Your task to perform on an android device: find which apps use the phone's location Image 0: 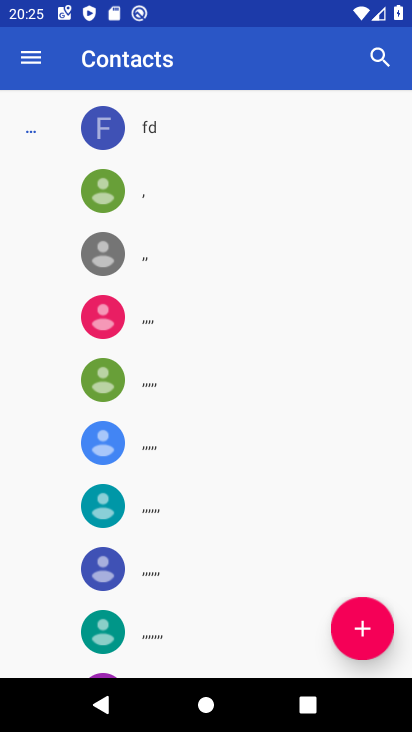
Step 0: press home button
Your task to perform on an android device: find which apps use the phone's location Image 1: 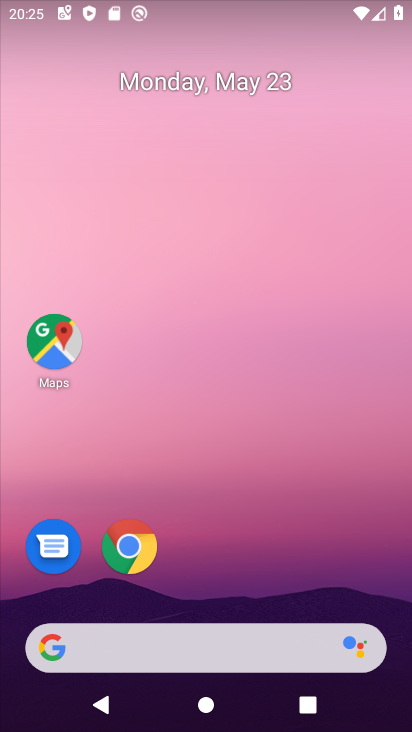
Step 1: drag from (361, 595) to (368, 209)
Your task to perform on an android device: find which apps use the phone's location Image 2: 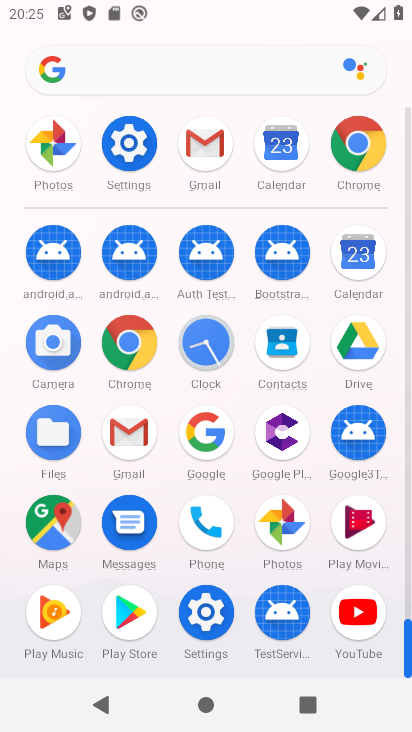
Step 2: click (220, 620)
Your task to perform on an android device: find which apps use the phone's location Image 3: 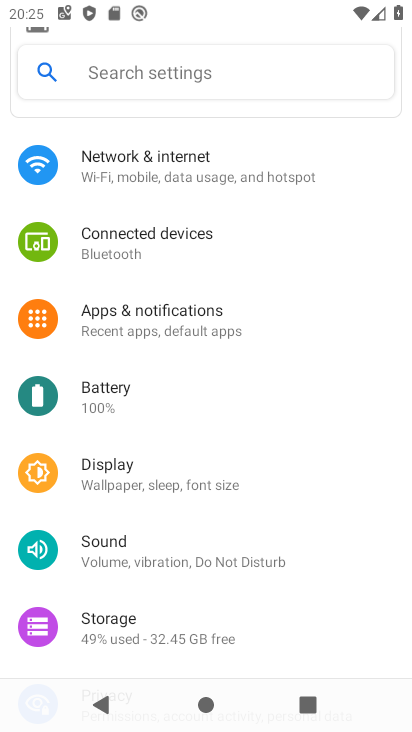
Step 3: drag from (367, 568) to (379, 487)
Your task to perform on an android device: find which apps use the phone's location Image 4: 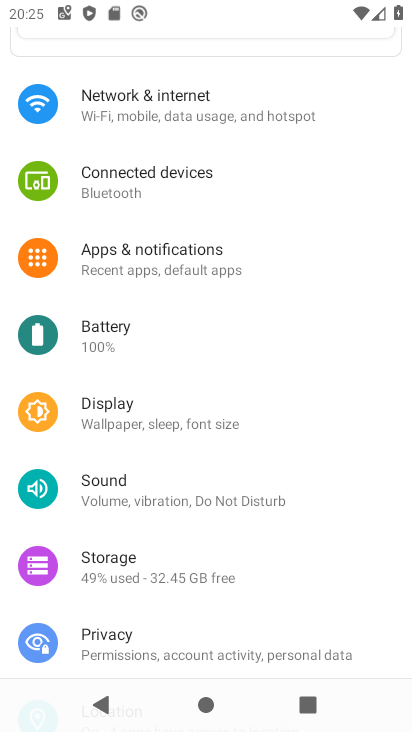
Step 4: drag from (365, 603) to (365, 505)
Your task to perform on an android device: find which apps use the phone's location Image 5: 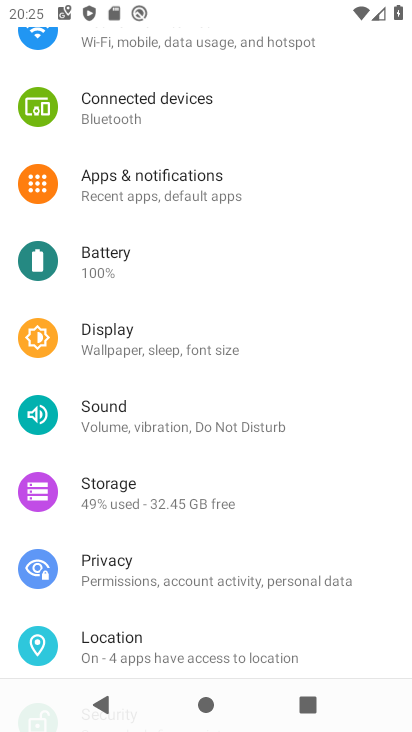
Step 5: drag from (375, 648) to (380, 548)
Your task to perform on an android device: find which apps use the phone's location Image 6: 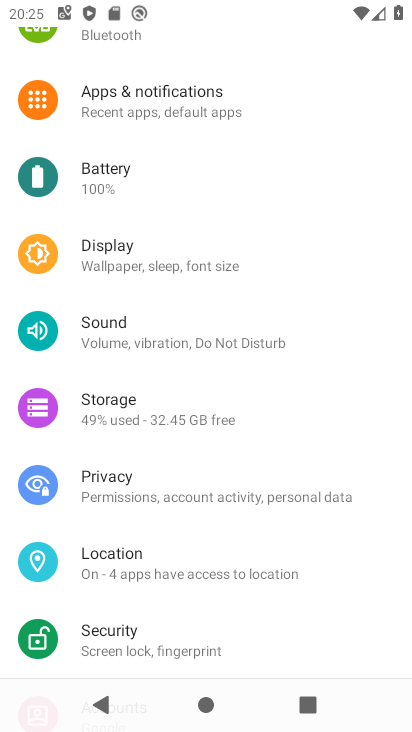
Step 6: drag from (363, 622) to (364, 491)
Your task to perform on an android device: find which apps use the phone's location Image 7: 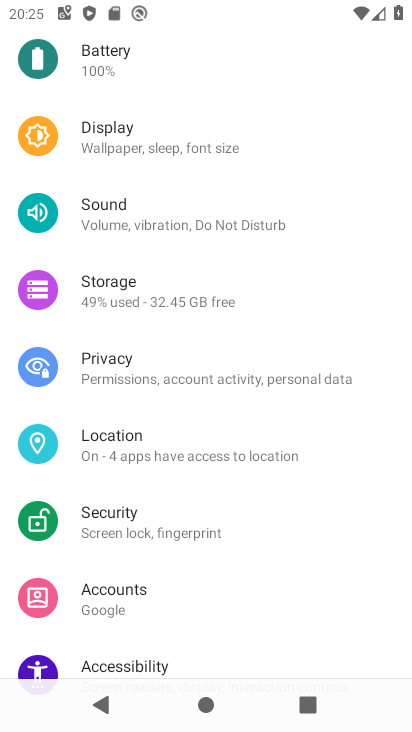
Step 7: drag from (359, 603) to (345, 466)
Your task to perform on an android device: find which apps use the phone's location Image 8: 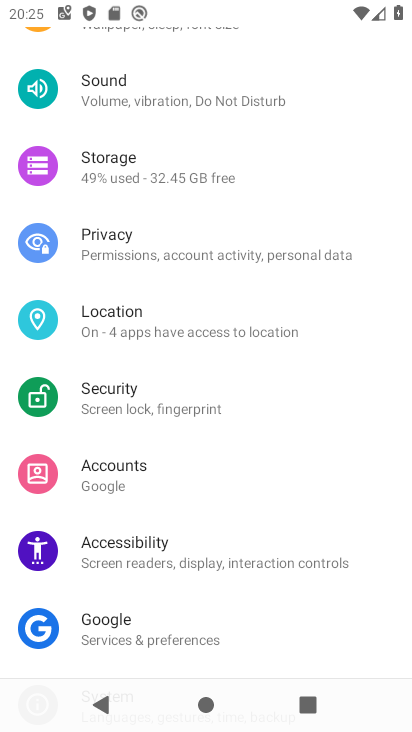
Step 8: drag from (347, 628) to (358, 473)
Your task to perform on an android device: find which apps use the phone's location Image 9: 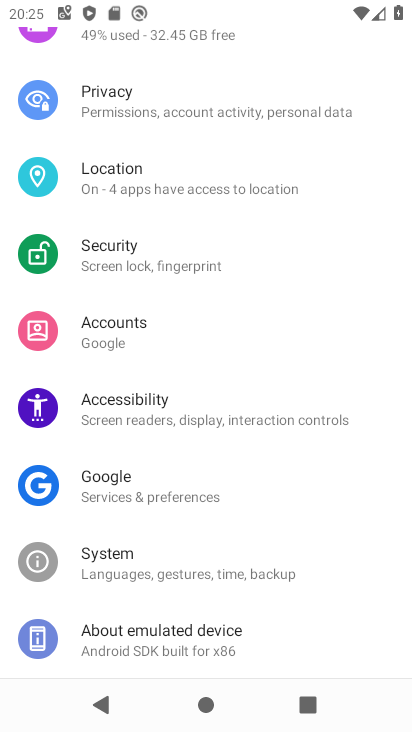
Step 9: drag from (341, 613) to (343, 510)
Your task to perform on an android device: find which apps use the phone's location Image 10: 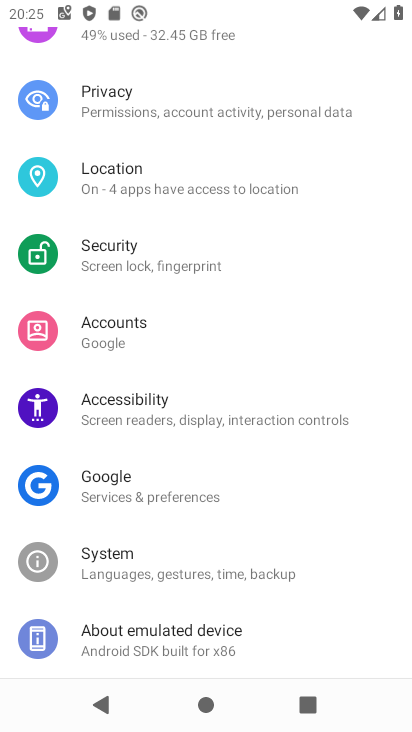
Step 10: drag from (342, 461) to (337, 525)
Your task to perform on an android device: find which apps use the phone's location Image 11: 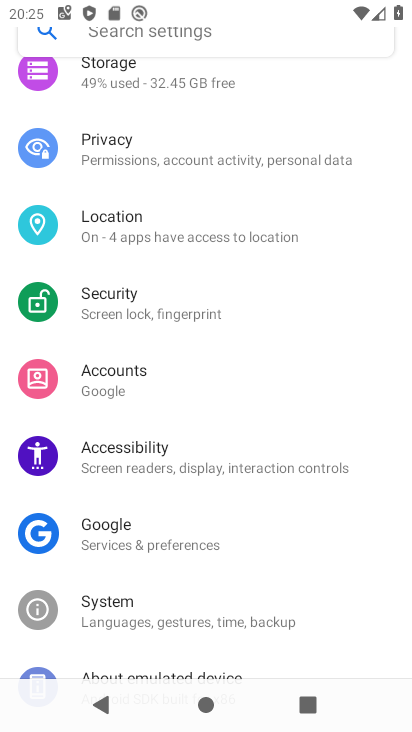
Step 11: drag from (351, 423) to (357, 516)
Your task to perform on an android device: find which apps use the phone's location Image 12: 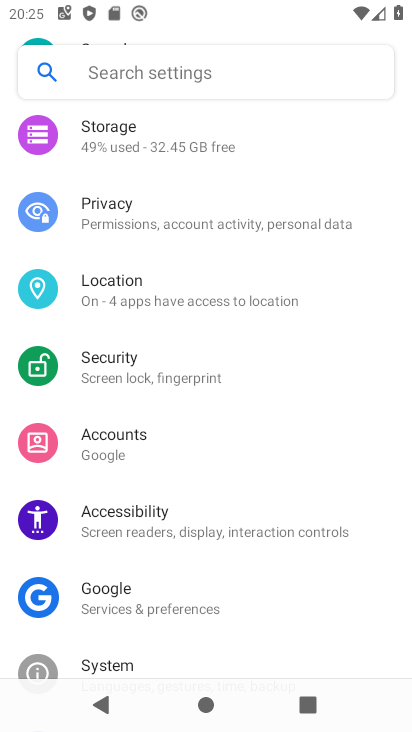
Step 12: drag from (356, 405) to (358, 489)
Your task to perform on an android device: find which apps use the phone's location Image 13: 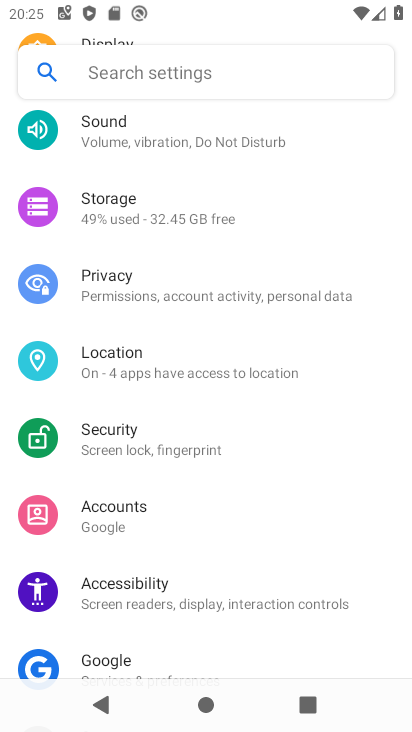
Step 13: drag from (361, 412) to (357, 496)
Your task to perform on an android device: find which apps use the phone's location Image 14: 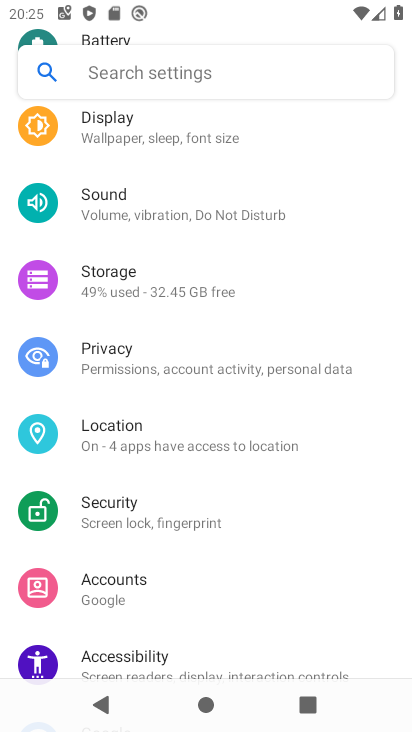
Step 14: drag from (358, 409) to (360, 483)
Your task to perform on an android device: find which apps use the phone's location Image 15: 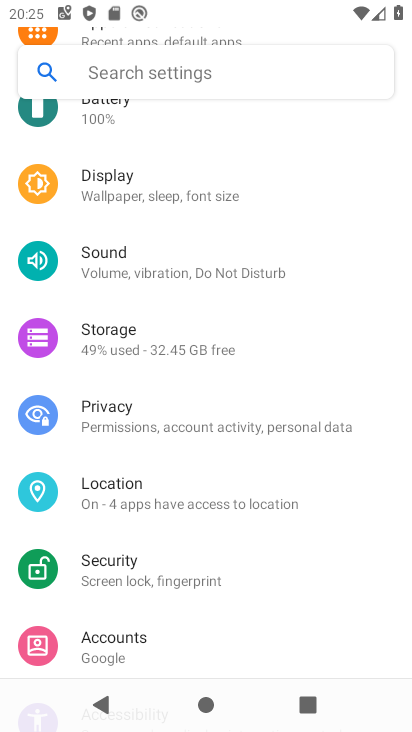
Step 15: click (299, 509)
Your task to perform on an android device: find which apps use the phone's location Image 16: 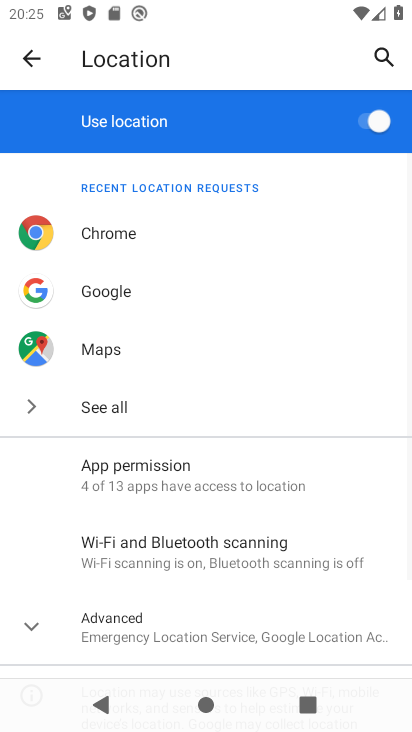
Step 16: click (278, 476)
Your task to perform on an android device: find which apps use the phone's location Image 17: 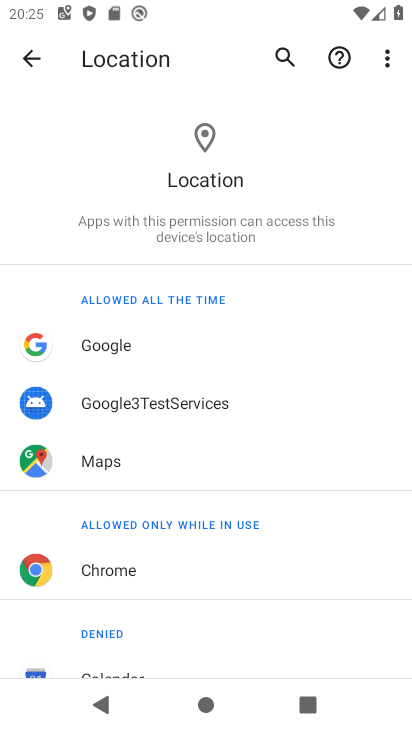
Step 17: drag from (341, 573) to (349, 485)
Your task to perform on an android device: find which apps use the phone's location Image 18: 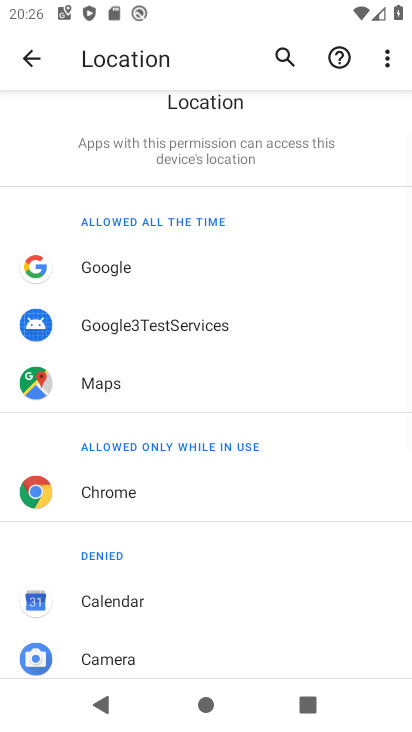
Step 18: drag from (342, 586) to (342, 461)
Your task to perform on an android device: find which apps use the phone's location Image 19: 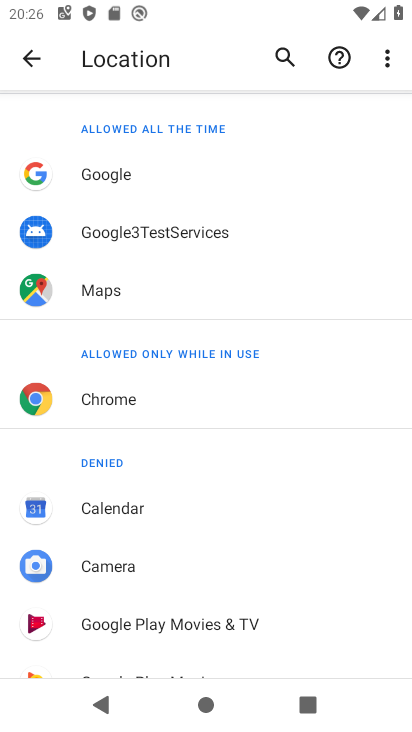
Step 19: drag from (357, 576) to (355, 480)
Your task to perform on an android device: find which apps use the phone's location Image 20: 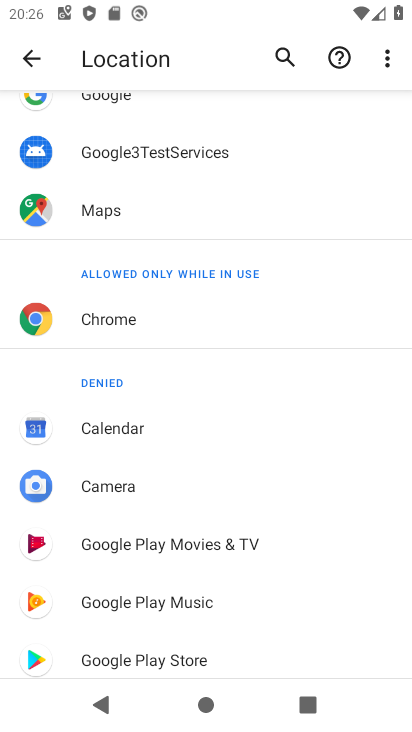
Step 20: drag from (338, 615) to (342, 548)
Your task to perform on an android device: find which apps use the phone's location Image 21: 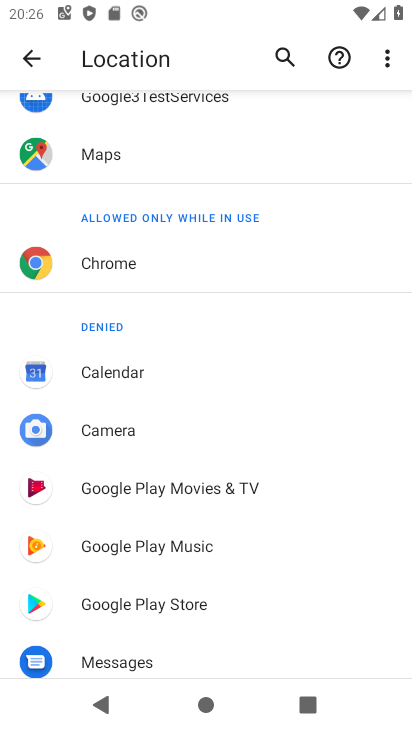
Step 21: drag from (350, 578) to (346, 497)
Your task to perform on an android device: find which apps use the phone's location Image 22: 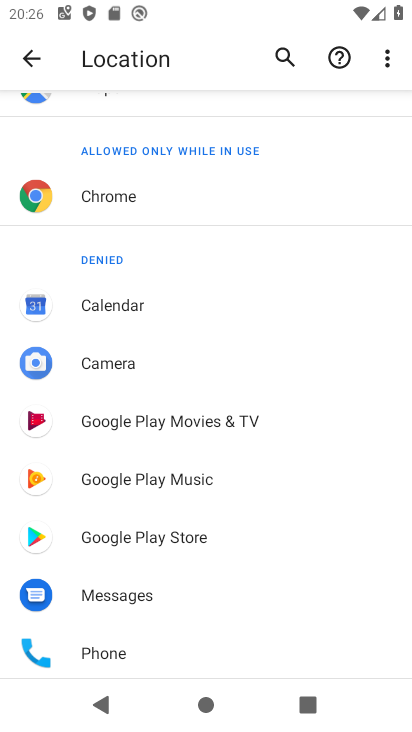
Step 22: drag from (334, 601) to (342, 500)
Your task to perform on an android device: find which apps use the phone's location Image 23: 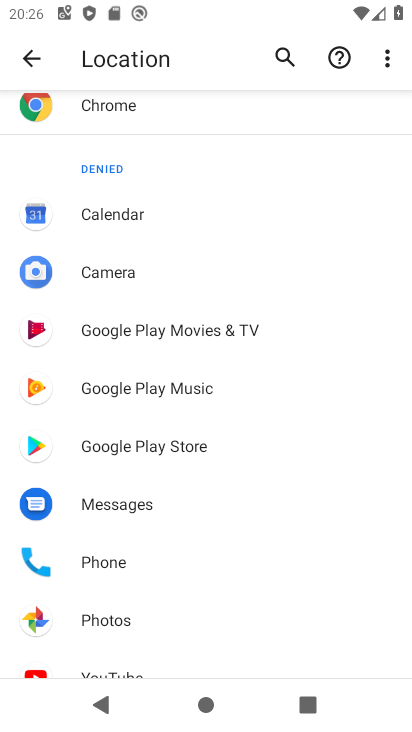
Step 23: click (146, 630)
Your task to perform on an android device: find which apps use the phone's location Image 24: 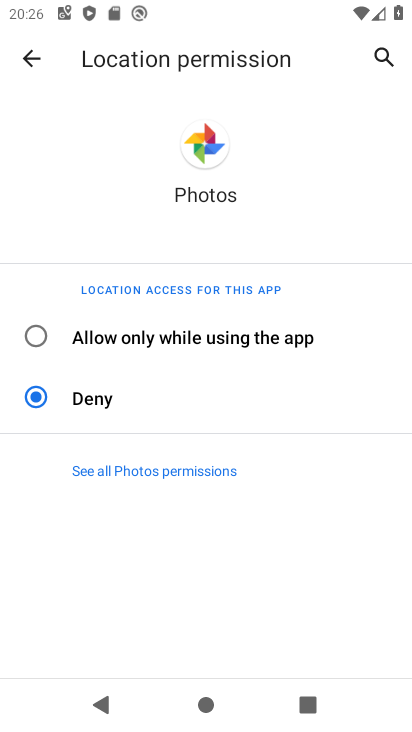
Step 24: click (81, 343)
Your task to perform on an android device: find which apps use the phone's location Image 25: 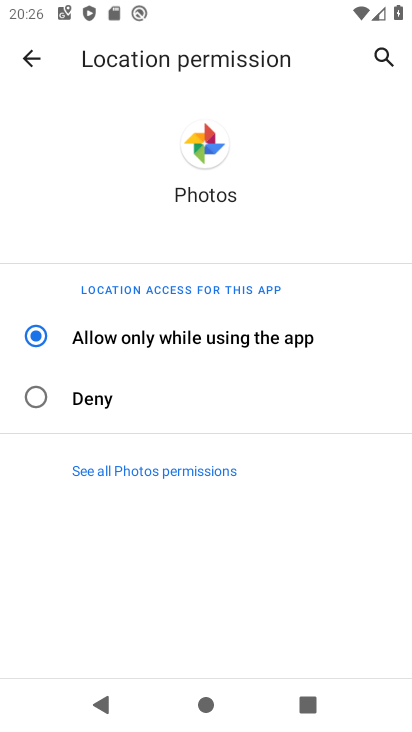
Step 25: task complete